Your task to perform on an android device: Go to privacy settings Image 0: 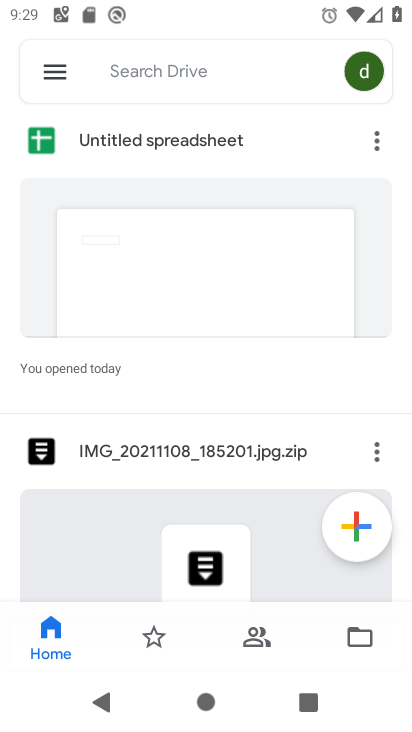
Step 0: press home button
Your task to perform on an android device: Go to privacy settings Image 1: 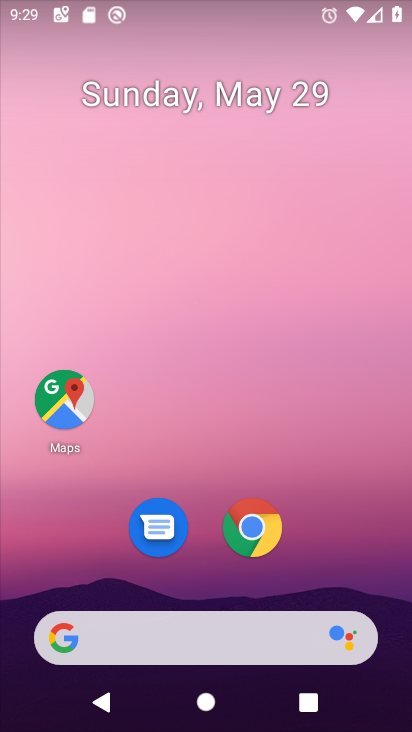
Step 1: drag from (211, 584) to (232, 26)
Your task to perform on an android device: Go to privacy settings Image 2: 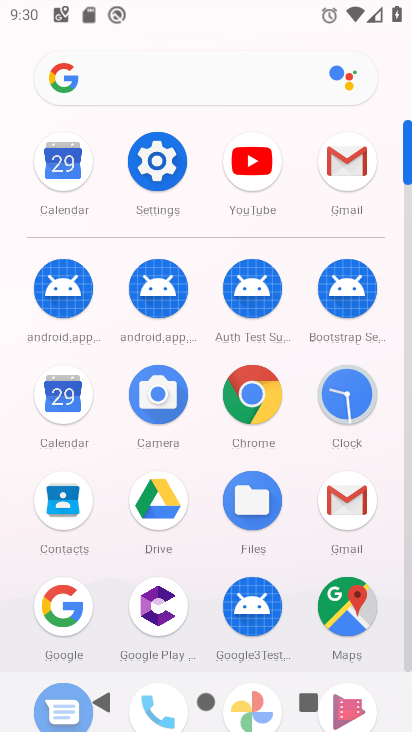
Step 2: click (152, 152)
Your task to perform on an android device: Go to privacy settings Image 3: 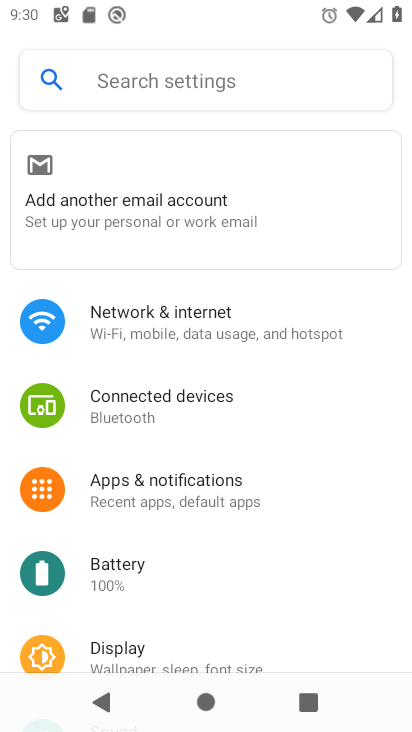
Step 3: drag from (189, 628) to (186, 173)
Your task to perform on an android device: Go to privacy settings Image 4: 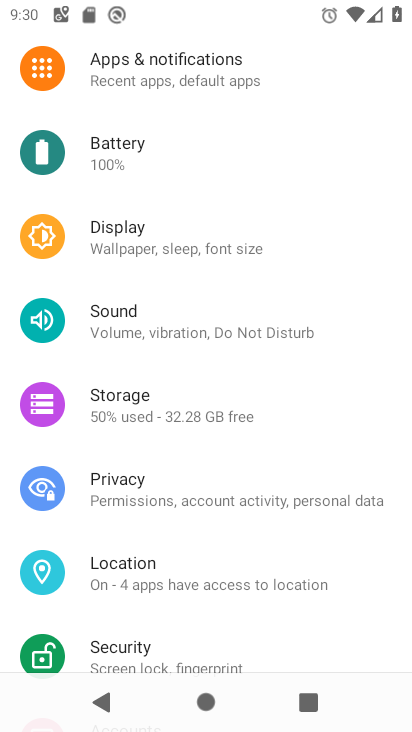
Step 4: click (158, 471)
Your task to perform on an android device: Go to privacy settings Image 5: 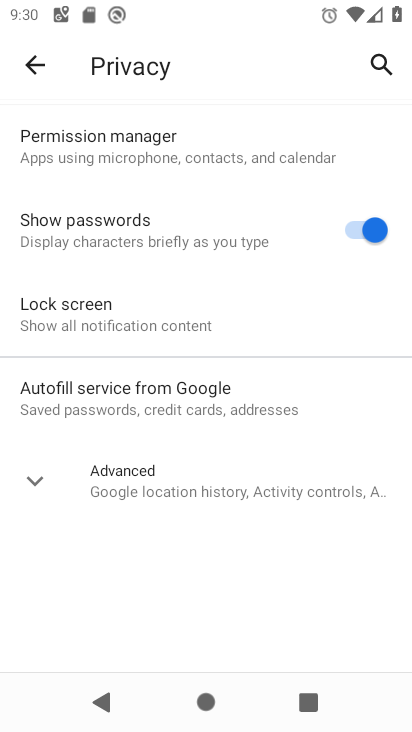
Step 5: click (33, 466)
Your task to perform on an android device: Go to privacy settings Image 6: 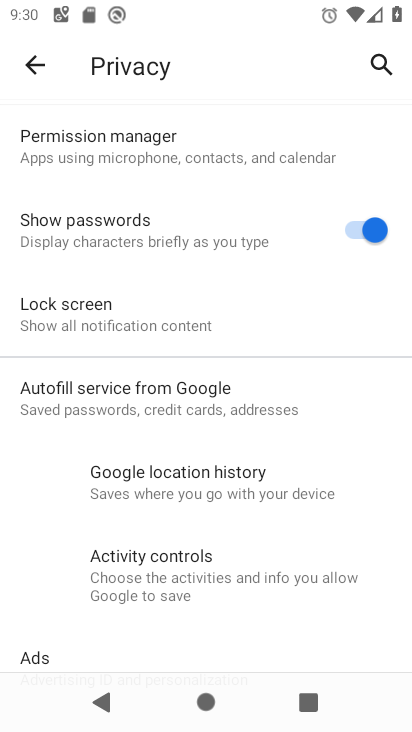
Step 6: task complete